Your task to perform on an android device: Check the news Image 0: 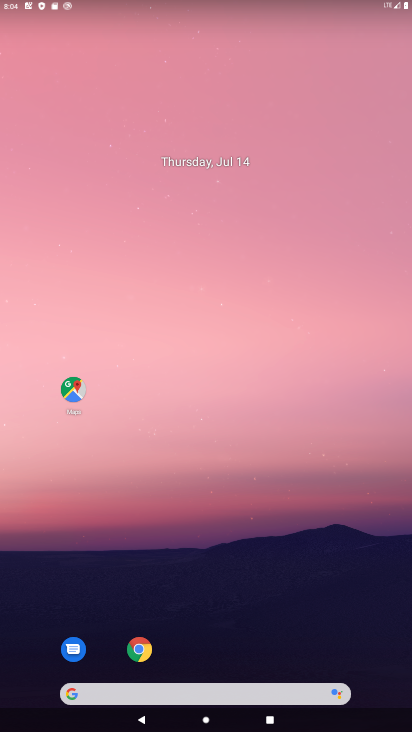
Step 0: click (179, 697)
Your task to perform on an android device: Check the news Image 1: 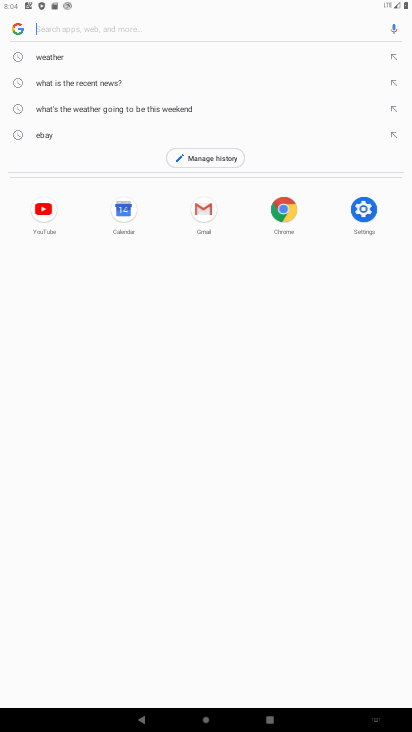
Step 1: type "news"
Your task to perform on an android device: Check the news Image 2: 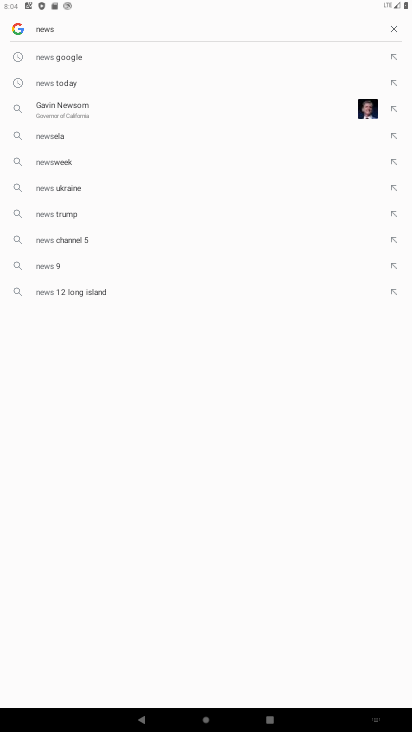
Step 2: press enter
Your task to perform on an android device: Check the news Image 3: 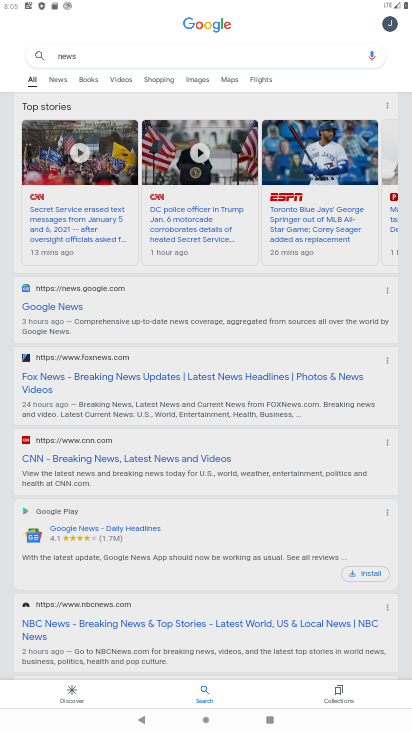
Step 3: task complete